Your task to perform on an android device: Do I have any events tomorrow? Image 0: 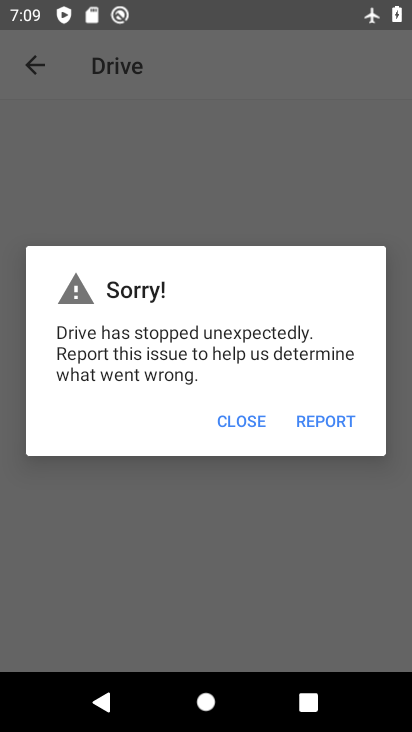
Step 0: press home button
Your task to perform on an android device: Do I have any events tomorrow? Image 1: 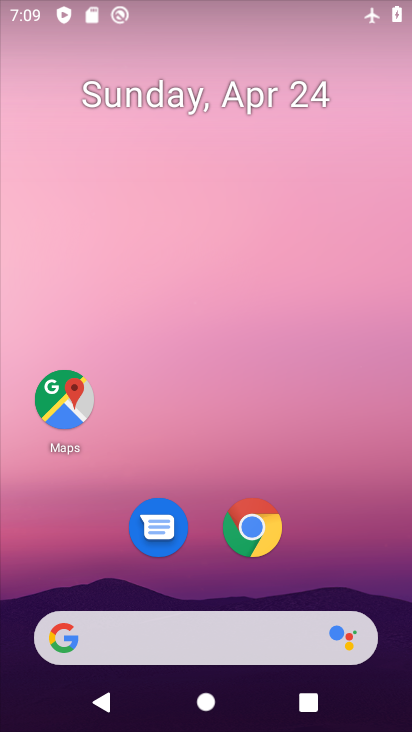
Step 1: drag from (317, 374) to (252, 25)
Your task to perform on an android device: Do I have any events tomorrow? Image 2: 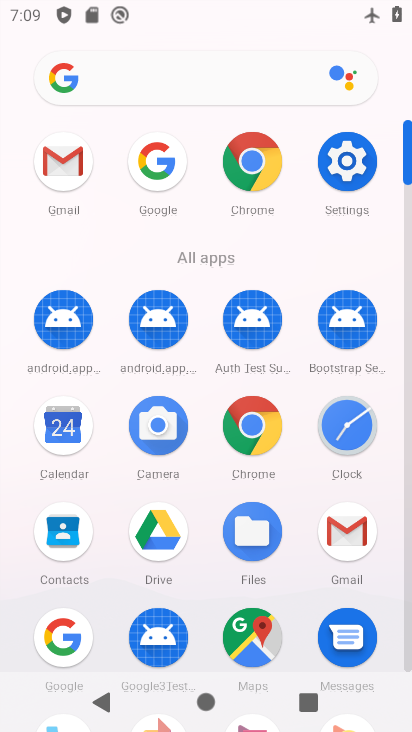
Step 2: click (62, 433)
Your task to perform on an android device: Do I have any events tomorrow? Image 3: 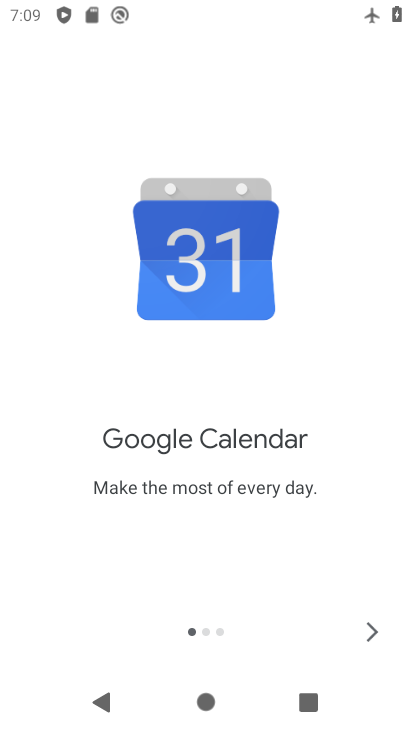
Step 3: click (375, 635)
Your task to perform on an android device: Do I have any events tomorrow? Image 4: 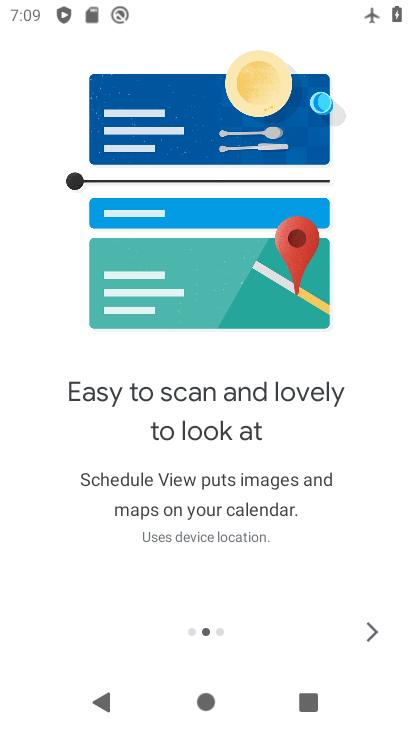
Step 4: click (375, 635)
Your task to perform on an android device: Do I have any events tomorrow? Image 5: 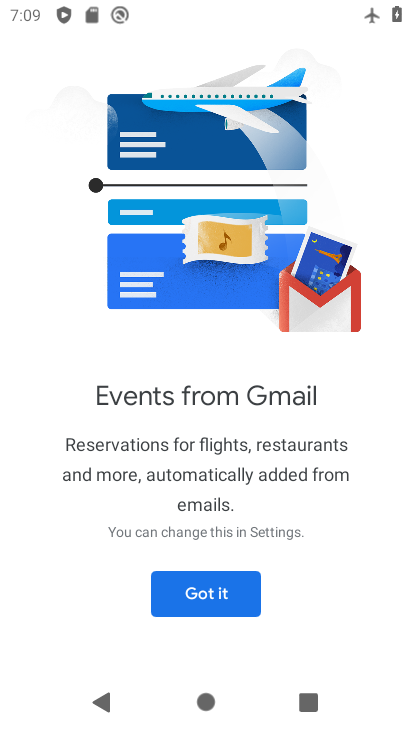
Step 5: click (375, 635)
Your task to perform on an android device: Do I have any events tomorrow? Image 6: 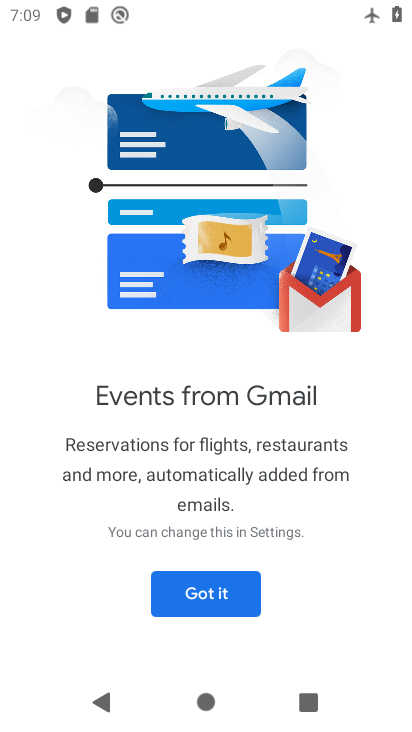
Step 6: click (222, 594)
Your task to perform on an android device: Do I have any events tomorrow? Image 7: 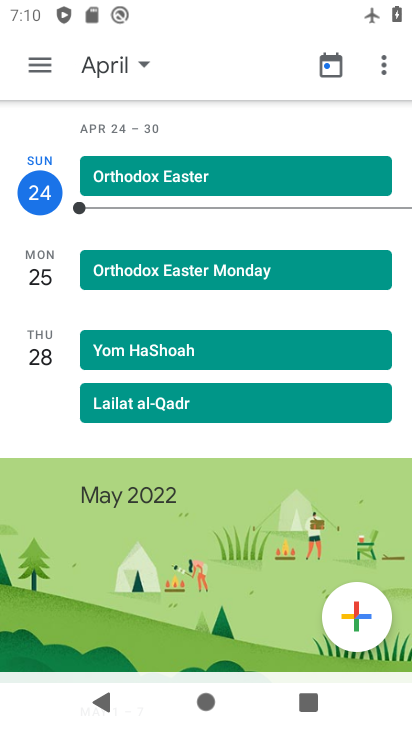
Step 7: click (117, 49)
Your task to perform on an android device: Do I have any events tomorrow? Image 8: 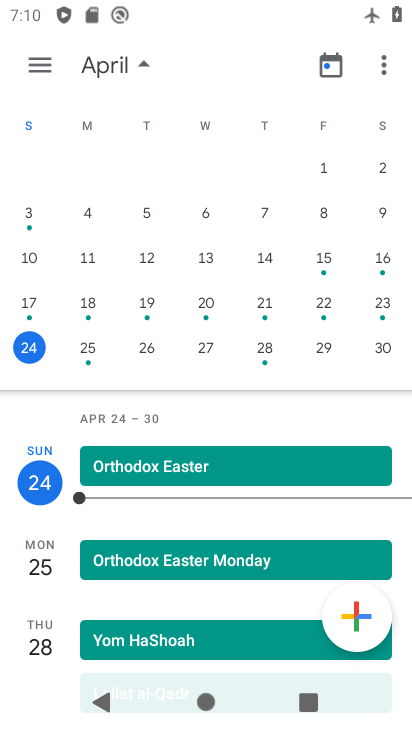
Step 8: click (142, 356)
Your task to perform on an android device: Do I have any events tomorrow? Image 9: 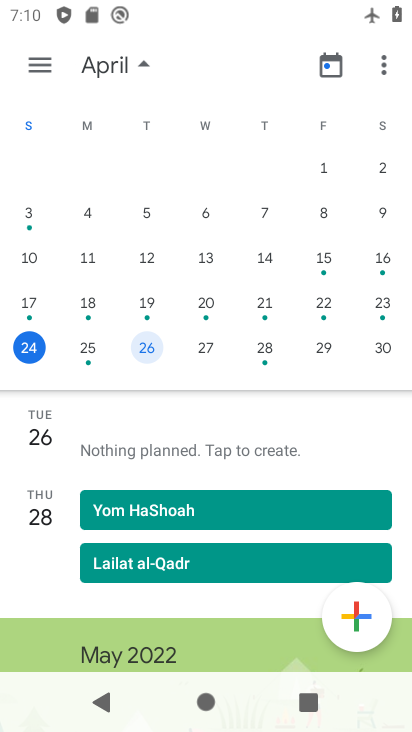
Step 9: click (84, 431)
Your task to perform on an android device: Do I have any events tomorrow? Image 10: 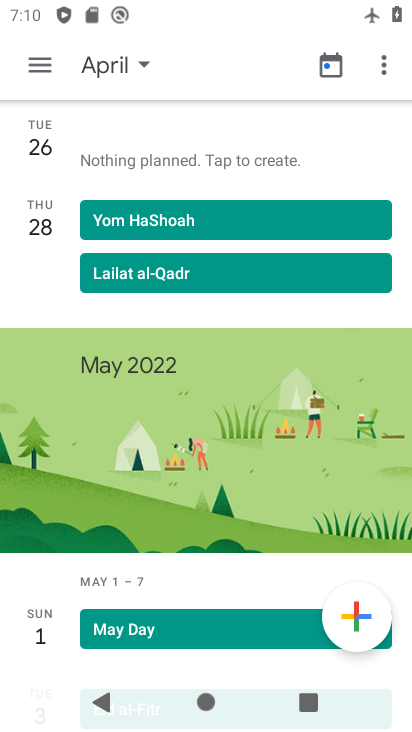
Step 10: task complete